Your task to perform on an android device: change timer sound Image 0: 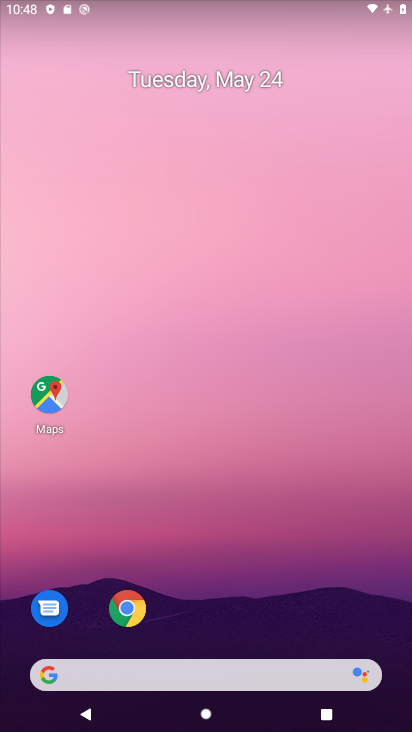
Step 0: drag from (385, 637) to (317, 135)
Your task to perform on an android device: change timer sound Image 1: 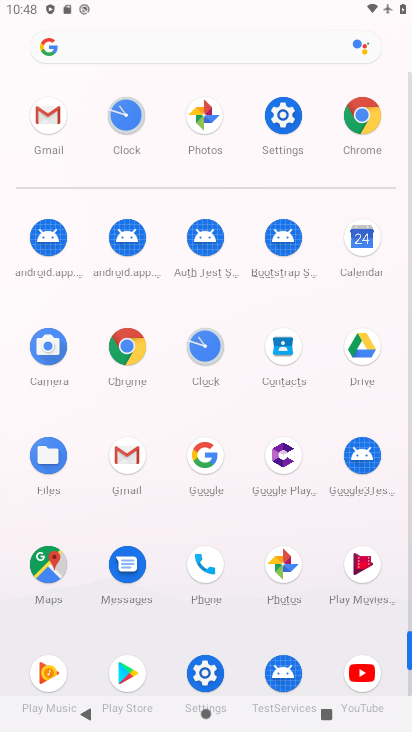
Step 1: click (204, 345)
Your task to perform on an android device: change timer sound Image 2: 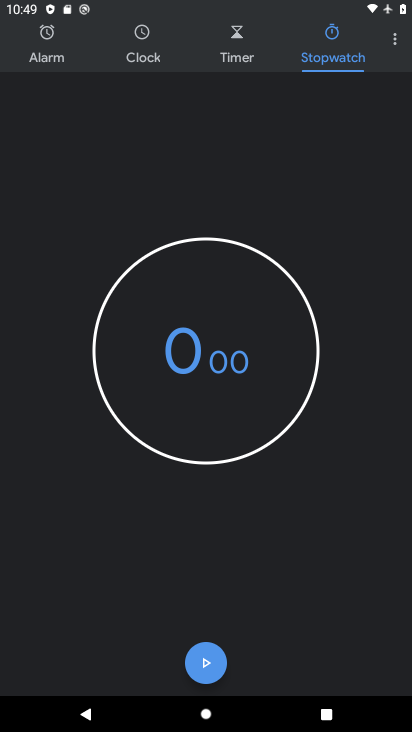
Step 2: click (395, 40)
Your task to perform on an android device: change timer sound Image 3: 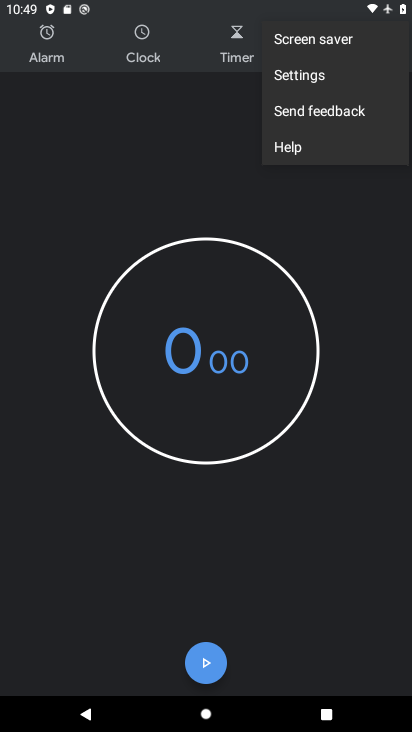
Step 3: click (303, 71)
Your task to perform on an android device: change timer sound Image 4: 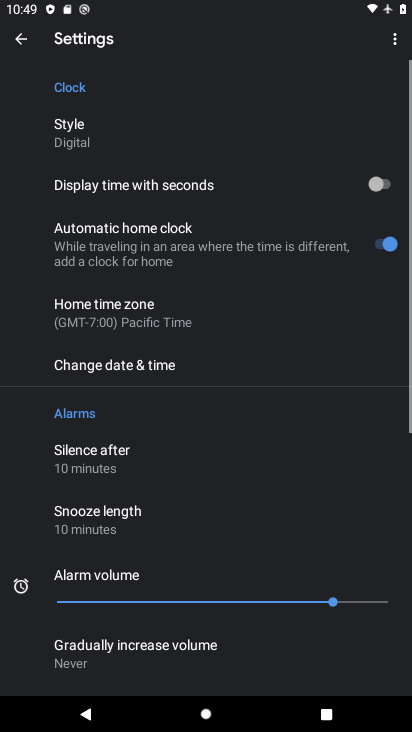
Step 4: drag from (240, 523) to (281, 108)
Your task to perform on an android device: change timer sound Image 5: 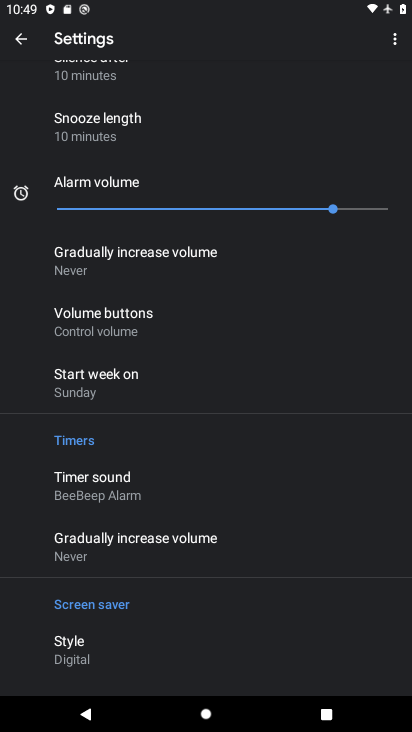
Step 5: click (90, 488)
Your task to perform on an android device: change timer sound Image 6: 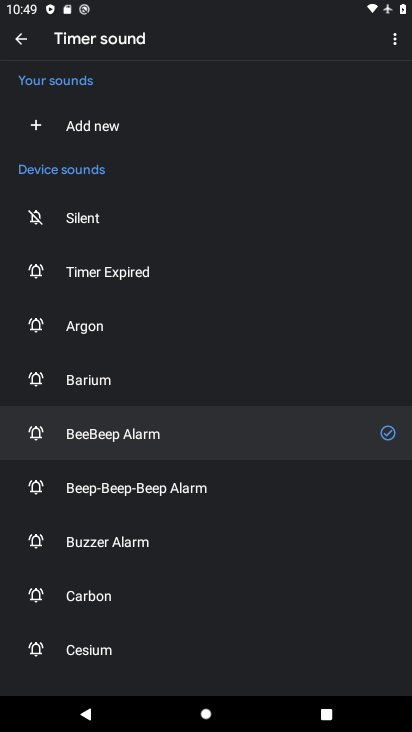
Step 6: click (92, 550)
Your task to perform on an android device: change timer sound Image 7: 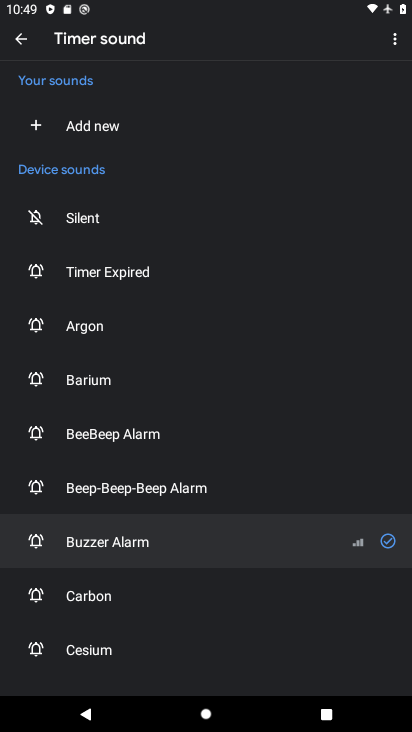
Step 7: task complete